Your task to perform on an android device: Show me productivity apps on the Play Store Image 0: 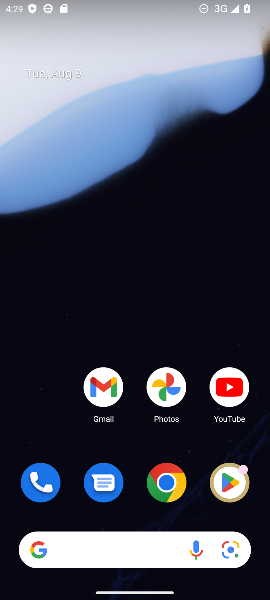
Step 0: click (217, 483)
Your task to perform on an android device: Show me productivity apps on the Play Store Image 1: 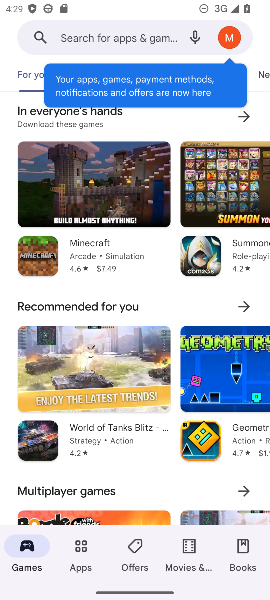
Step 1: click (84, 556)
Your task to perform on an android device: Show me productivity apps on the Play Store Image 2: 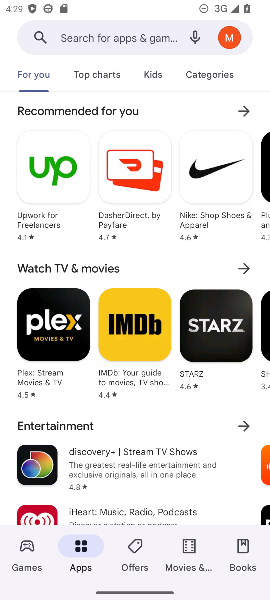
Step 2: click (197, 70)
Your task to perform on an android device: Show me productivity apps on the Play Store Image 3: 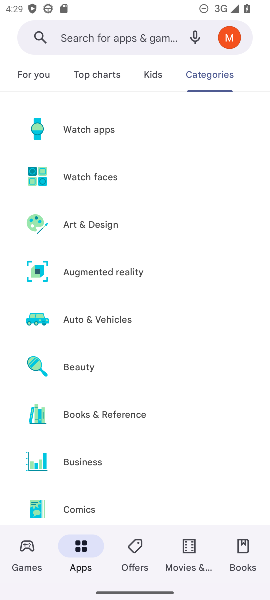
Step 3: drag from (141, 441) to (128, 172)
Your task to perform on an android device: Show me productivity apps on the Play Store Image 4: 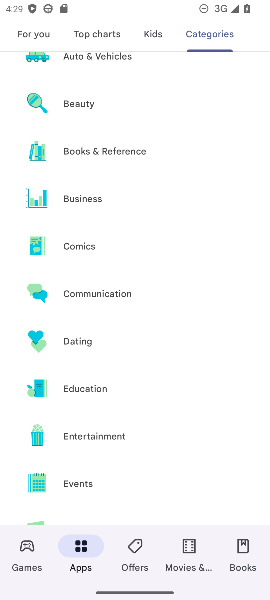
Step 4: drag from (125, 420) to (125, 135)
Your task to perform on an android device: Show me productivity apps on the Play Store Image 5: 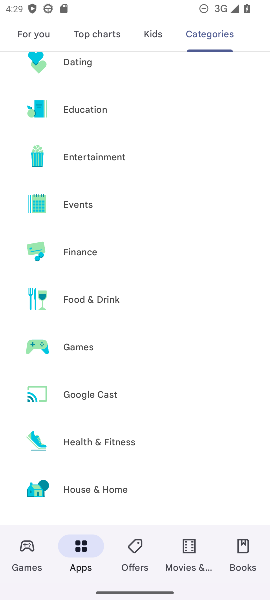
Step 5: drag from (131, 441) to (125, 163)
Your task to perform on an android device: Show me productivity apps on the Play Store Image 6: 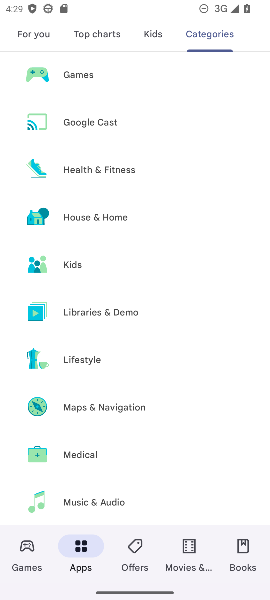
Step 6: drag from (162, 419) to (137, 155)
Your task to perform on an android device: Show me productivity apps on the Play Store Image 7: 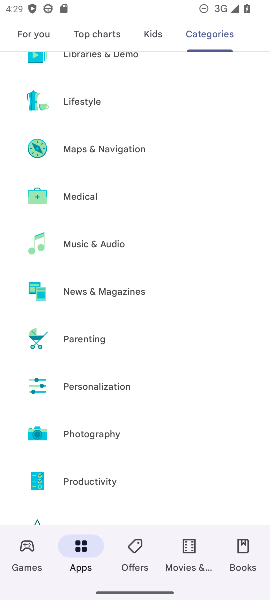
Step 7: click (113, 484)
Your task to perform on an android device: Show me productivity apps on the Play Store Image 8: 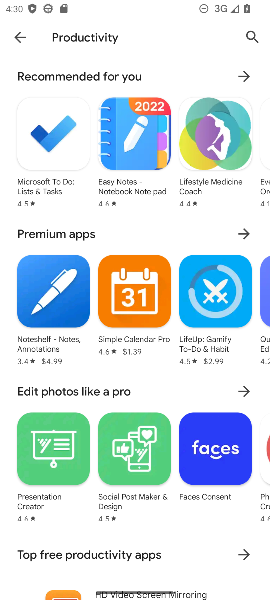
Step 8: task complete